Your task to perform on an android device: check data usage Image 0: 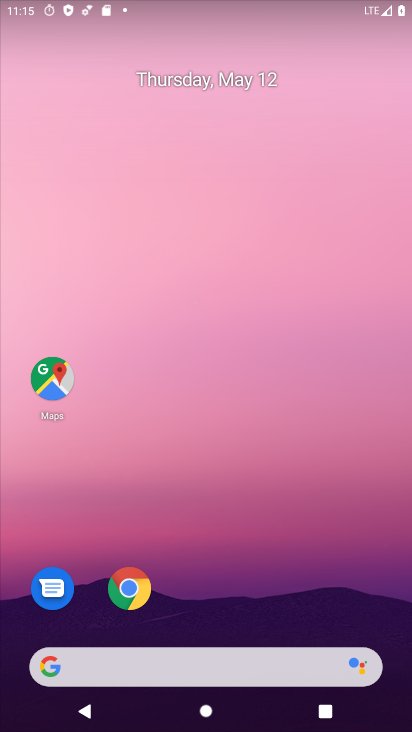
Step 0: drag from (277, 577) to (339, 90)
Your task to perform on an android device: check data usage Image 1: 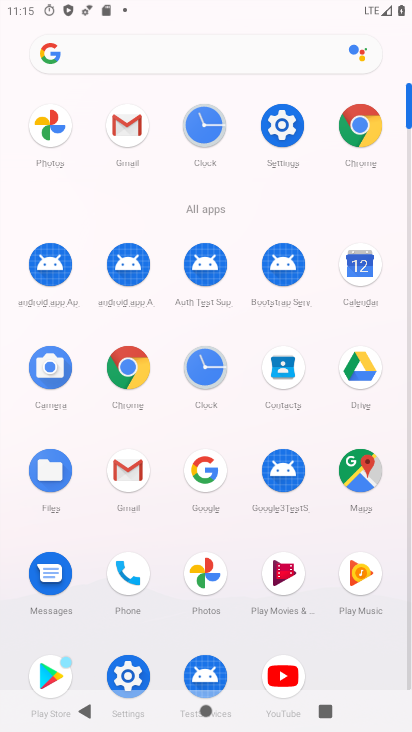
Step 1: click (290, 123)
Your task to perform on an android device: check data usage Image 2: 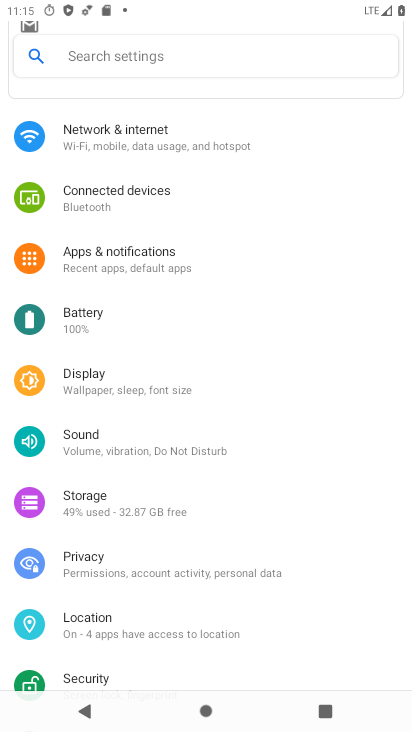
Step 2: drag from (149, 147) to (188, 507)
Your task to perform on an android device: check data usage Image 3: 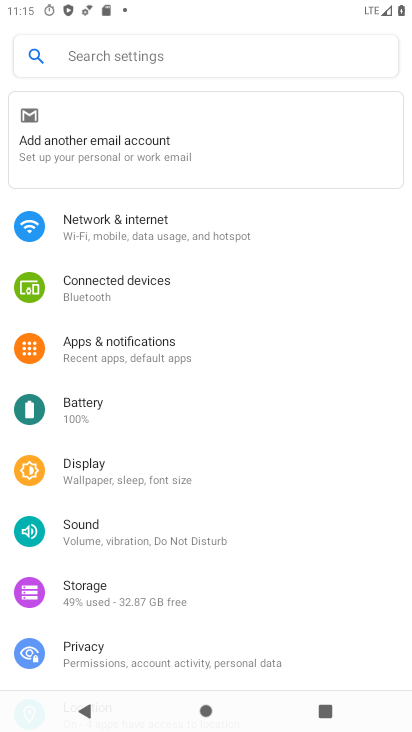
Step 3: click (113, 222)
Your task to perform on an android device: check data usage Image 4: 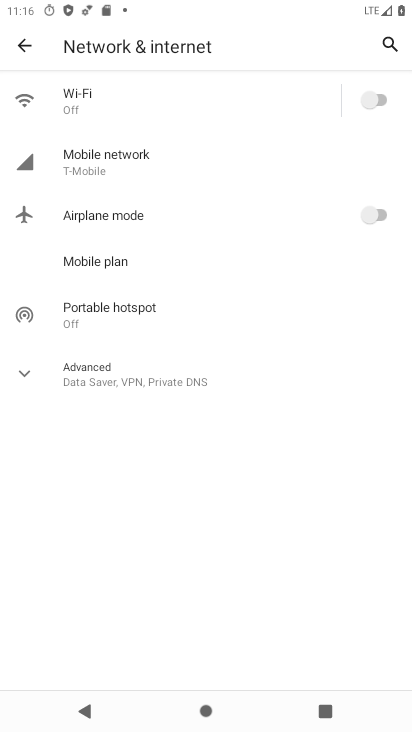
Step 4: click (115, 159)
Your task to perform on an android device: check data usage Image 5: 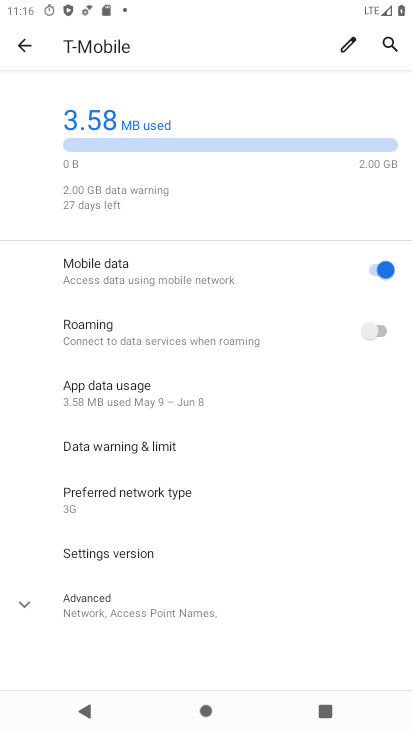
Step 5: task complete